Your task to perform on an android device: Open the calendar and show me this week's events Image 0: 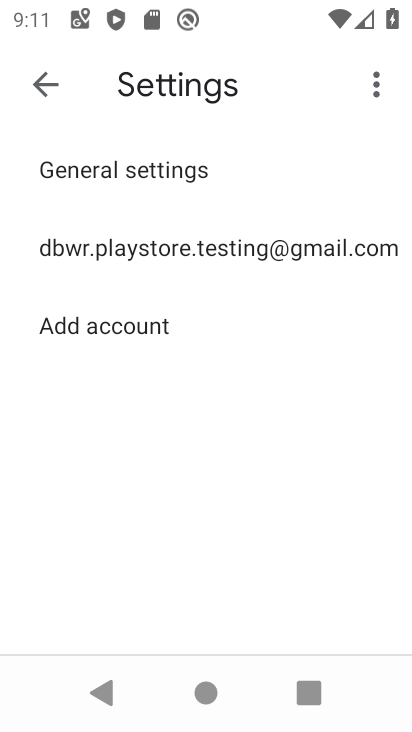
Step 0: press home button
Your task to perform on an android device: Open the calendar and show me this week's events Image 1: 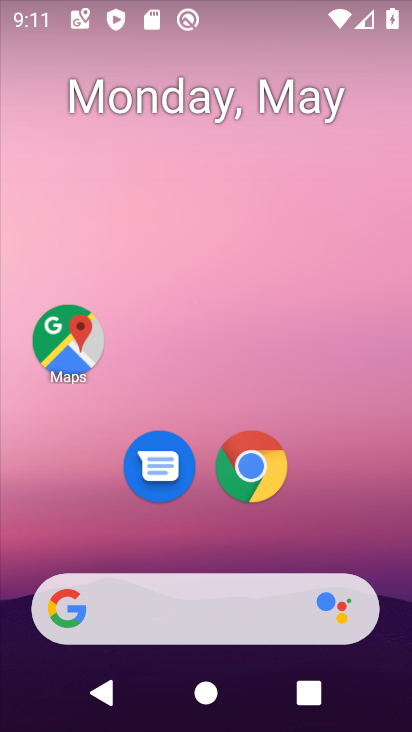
Step 1: drag from (193, 647) to (264, 35)
Your task to perform on an android device: Open the calendar and show me this week's events Image 2: 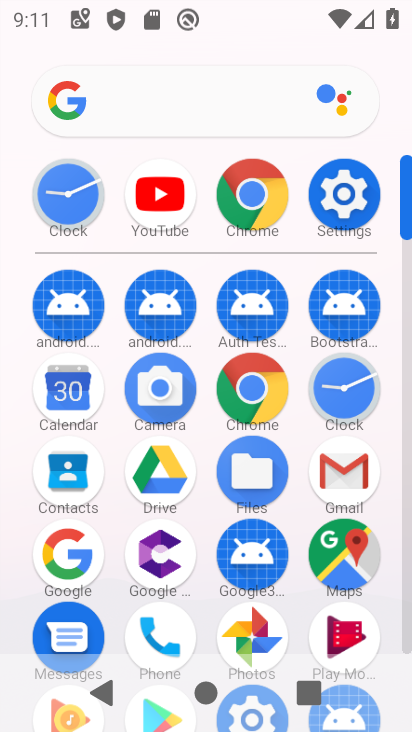
Step 2: click (60, 382)
Your task to perform on an android device: Open the calendar and show me this week's events Image 3: 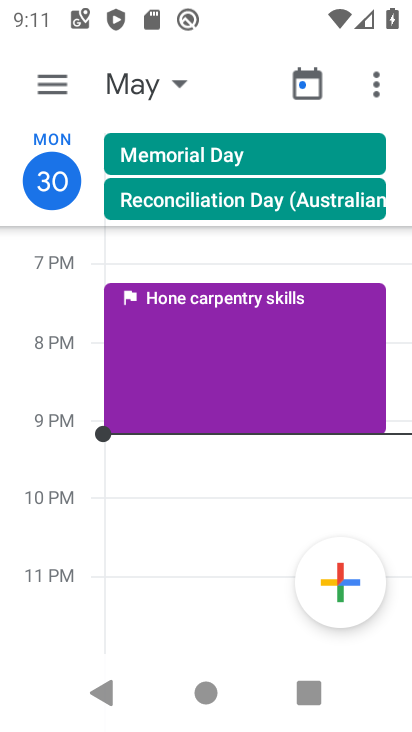
Step 3: click (63, 86)
Your task to perform on an android device: Open the calendar and show me this week's events Image 4: 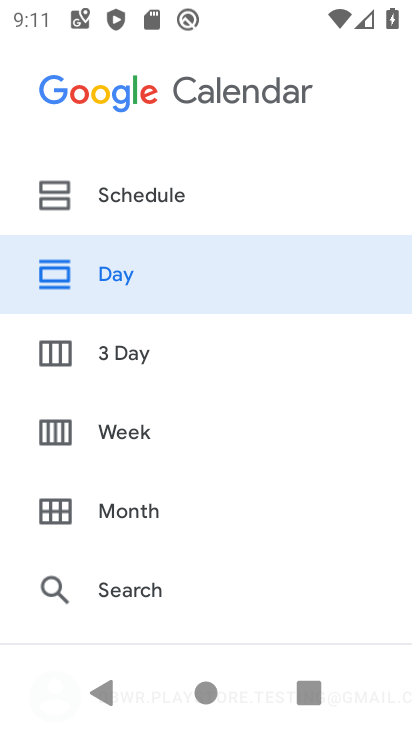
Step 4: click (138, 427)
Your task to perform on an android device: Open the calendar and show me this week's events Image 5: 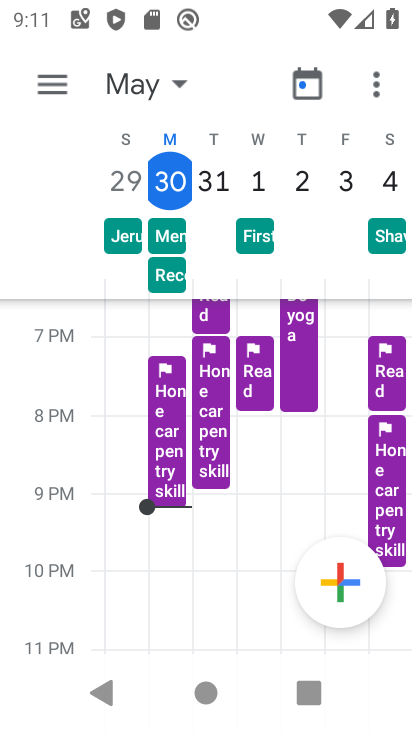
Step 5: task complete